Your task to perform on an android device: Open the stopwatch Image 0: 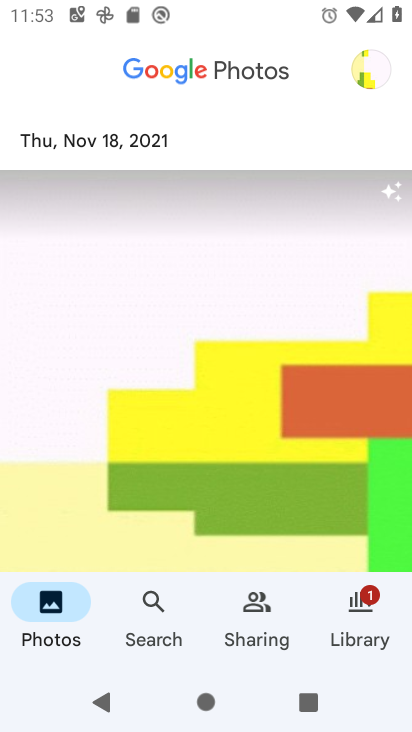
Step 0: press home button
Your task to perform on an android device: Open the stopwatch Image 1: 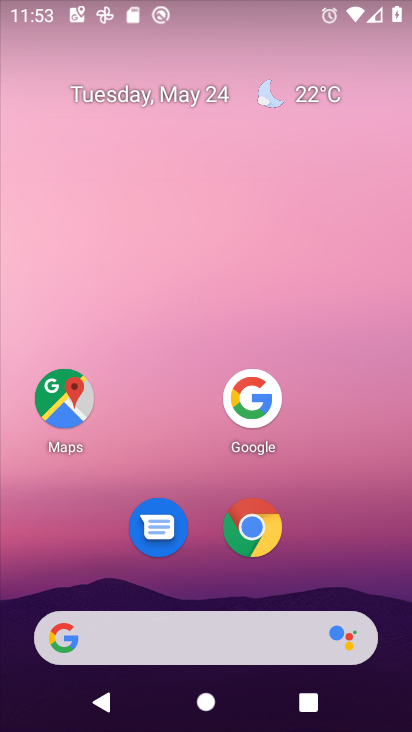
Step 1: drag from (194, 632) to (372, 81)
Your task to perform on an android device: Open the stopwatch Image 2: 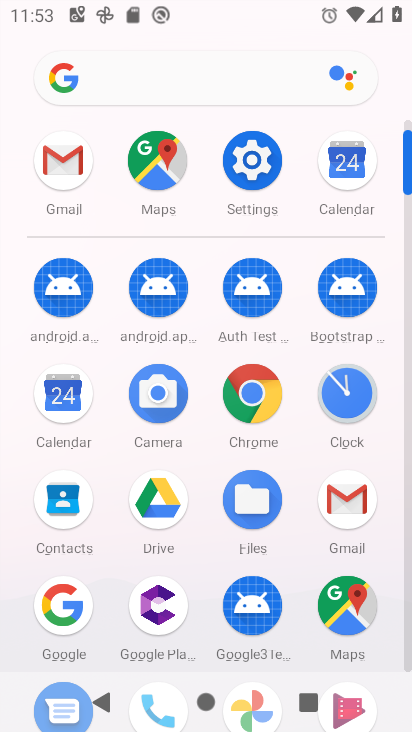
Step 2: click (256, 165)
Your task to perform on an android device: Open the stopwatch Image 3: 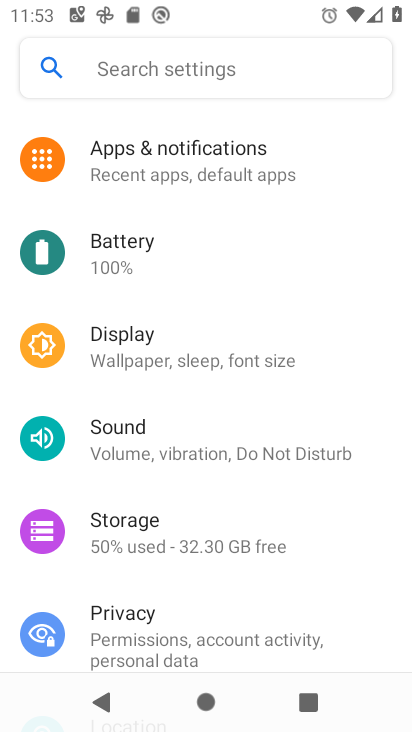
Step 3: press home button
Your task to perform on an android device: Open the stopwatch Image 4: 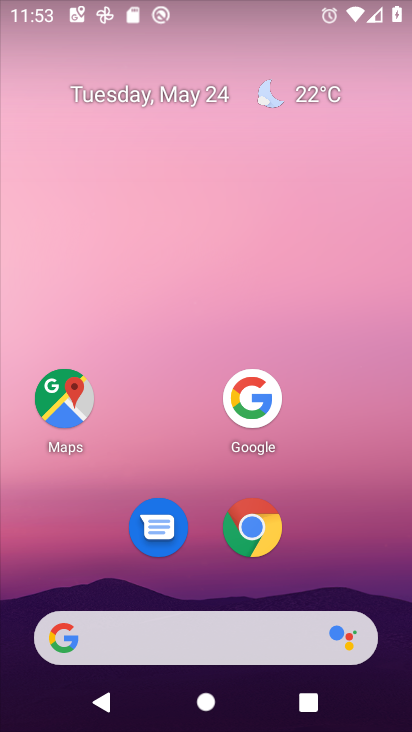
Step 4: drag from (200, 649) to (341, 189)
Your task to perform on an android device: Open the stopwatch Image 5: 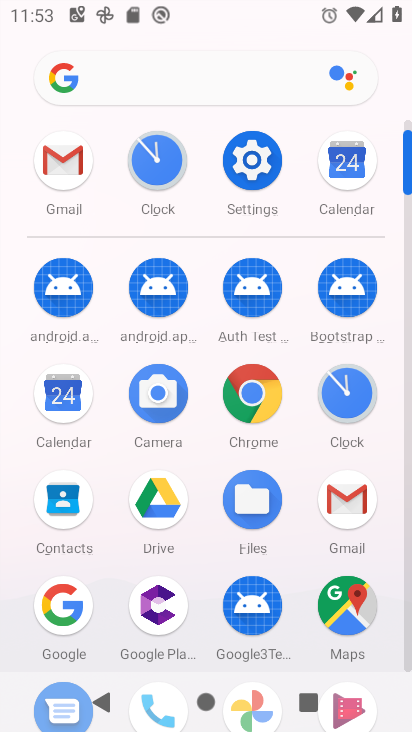
Step 5: click (351, 432)
Your task to perform on an android device: Open the stopwatch Image 6: 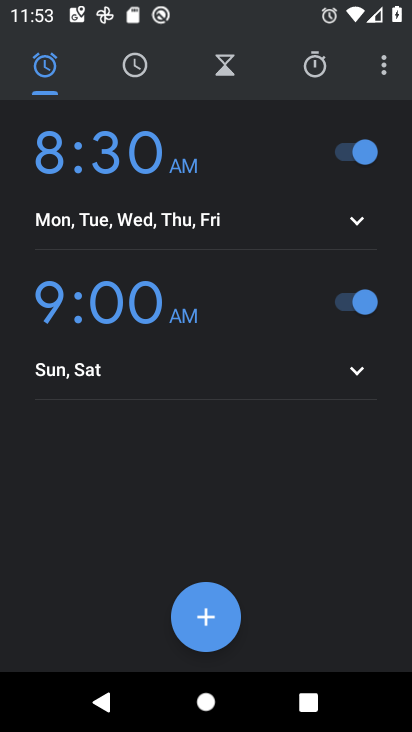
Step 6: click (316, 74)
Your task to perform on an android device: Open the stopwatch Image 7: 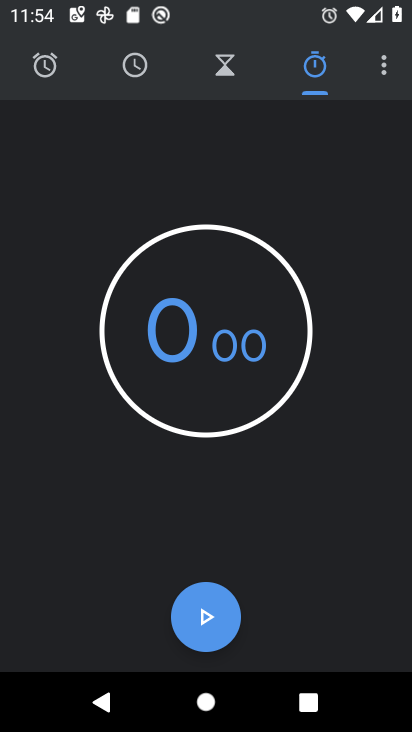
Step 7: task complete